Your task to perform on an android device: turn notification dots off Image 0: 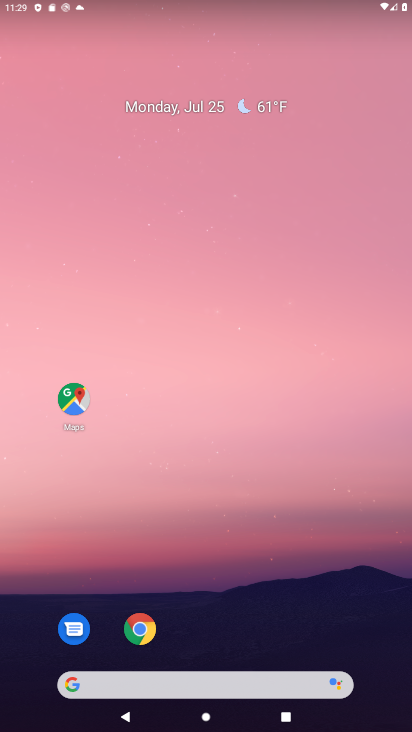
Step 0: drag from (210, 649) to (288, 125)
Your task to perform on an android device: turn notification dots off Image 1: 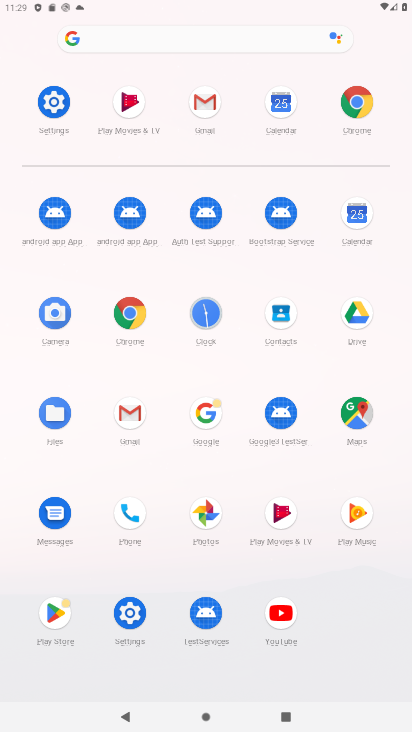
Step 1: click (132, 613)
Your task to perform on an android device: turn notification dots off Image 2: 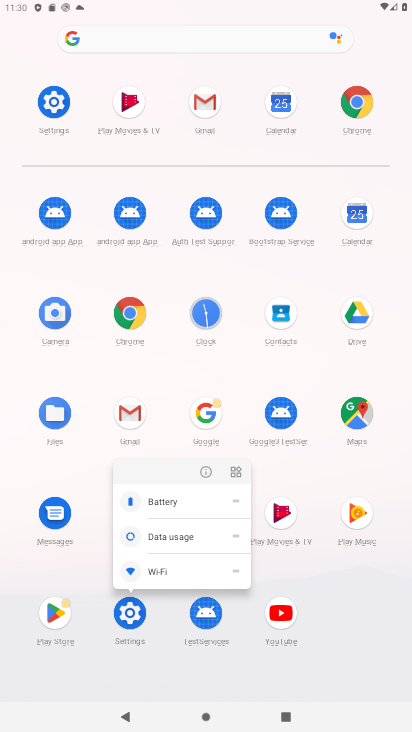
Step 2: click (206, 468)
Your task to perform on an android device: turn notification dots off Image 3: 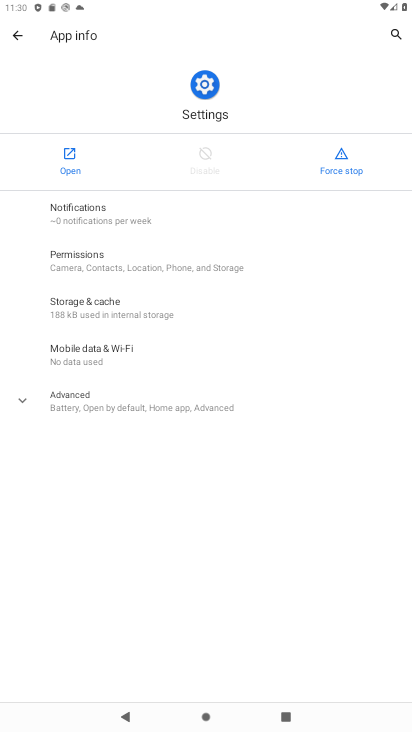
Step 3: click (62, 153)
Your task to perform on an android device: turn notification dots off Image 4: 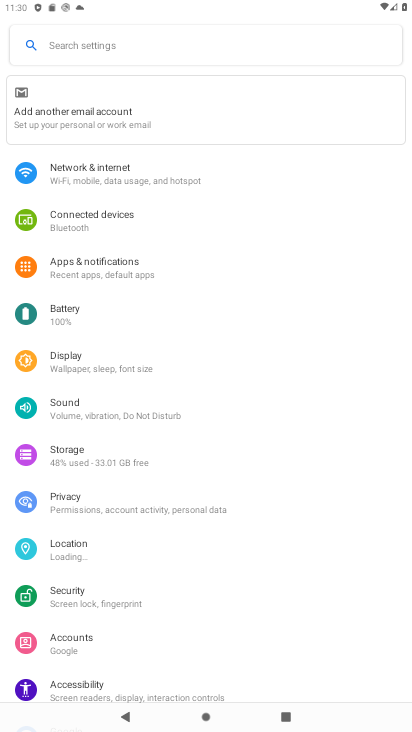
Step 4: click (100, 255)
Your task to perform on an android device: turn notification dots off Image 5: 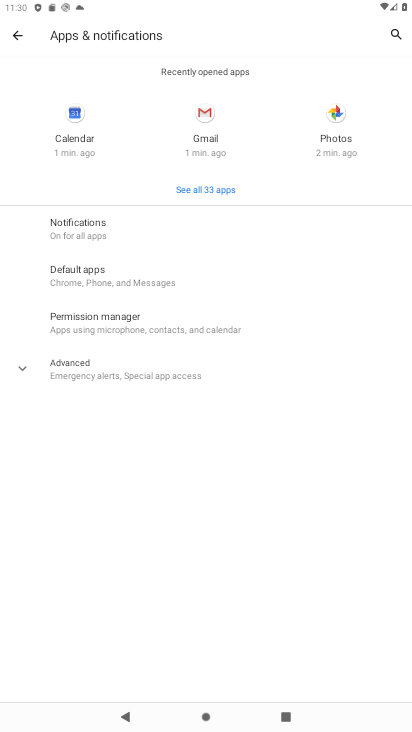
Step 5: click (125, 222)
Your task to perform on an android device: turn notification dots off Image 6: 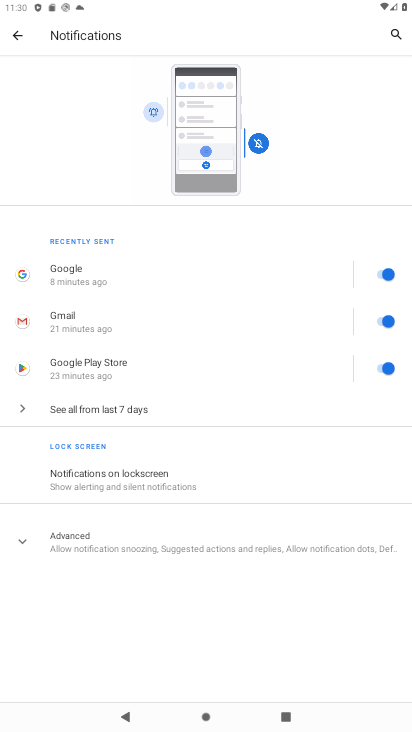
Step 6: click (164, 531)
Your task to perform on an android device: turn notification dots off Image 7: 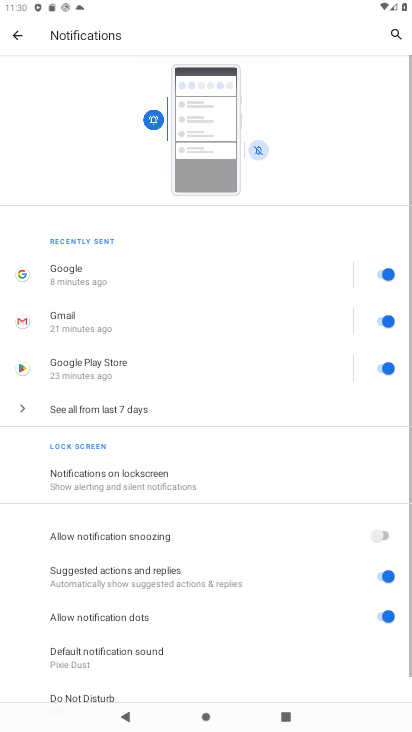
Step 7: drag from (186, 562) to (247, 231)
Your task to perform on an android device: turn notification dots off Image 8: 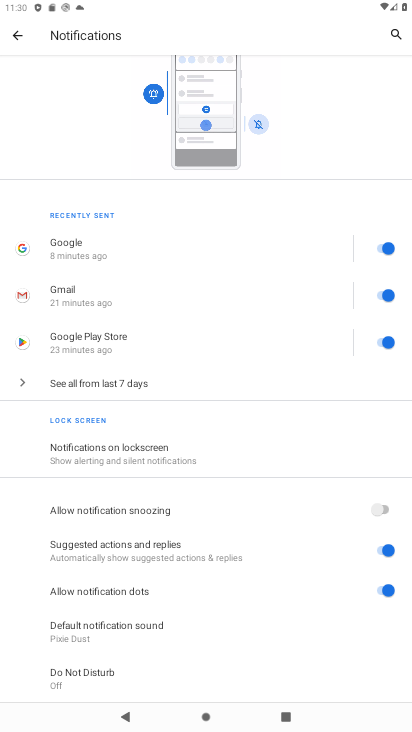
Step 8: click (386, 588)
Your task to perform on an android device: turn notification dots off Image 9: 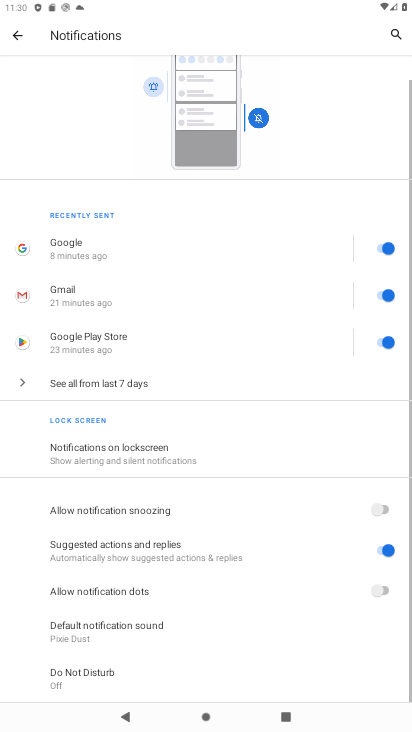
Step 9: task complete